Your task to perform on an android device: Open privacy settings Image 0: 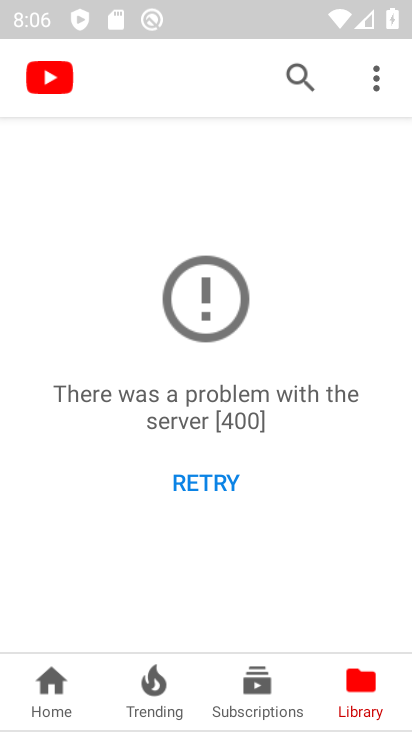
Step 0: press back button
Your task to perform on an android device: Open privacy settings Image 1: 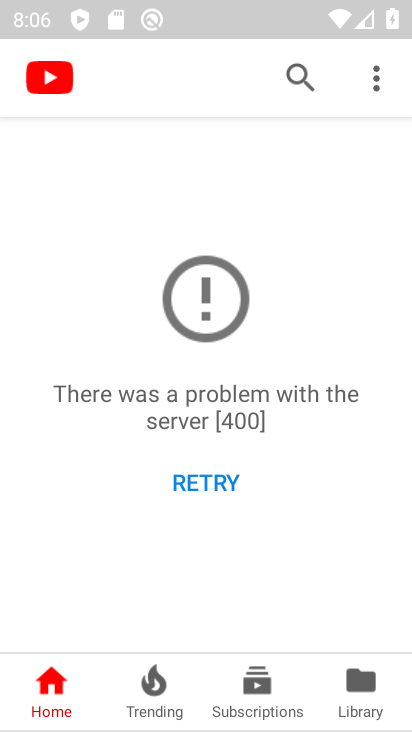
Step 1: press back button
Your task to perform on an android device: Open privacy settings Image 2: 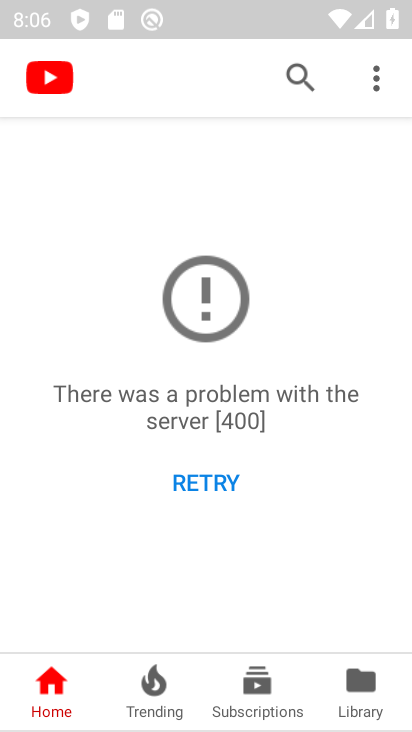
Step 2: press back button
Your task to perform on an android device: Open privacy settings Image 3: 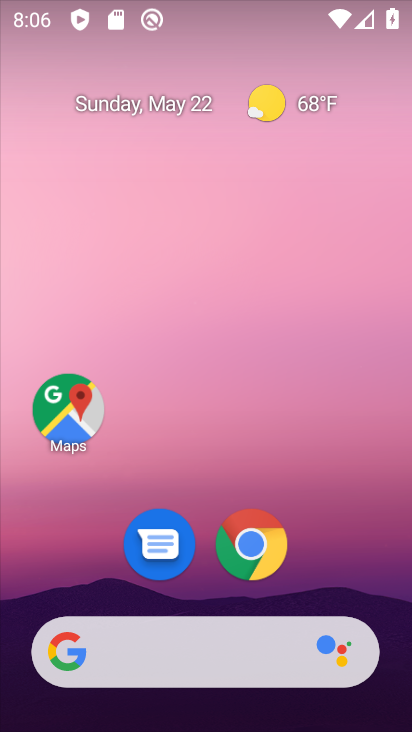
Step 3: drag from (389, 607) to (408, 174)
Your task to perform on an android device: Open privacy settings Image 4: 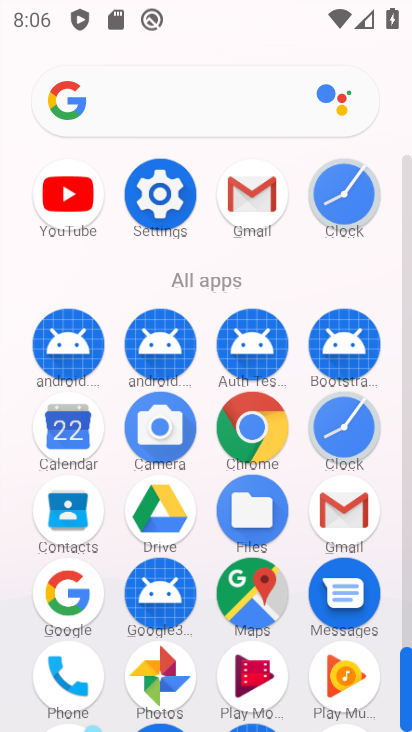
Step 4: click (243, 428)
Your task to perform on an android device: Open privacy settings Image 5: 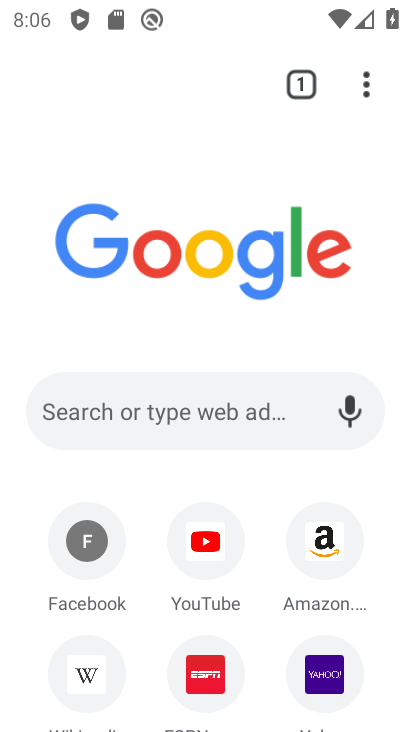
Step 5: click (363, 76)
Your task to perform on an android device: Open privacy settings Image 6: 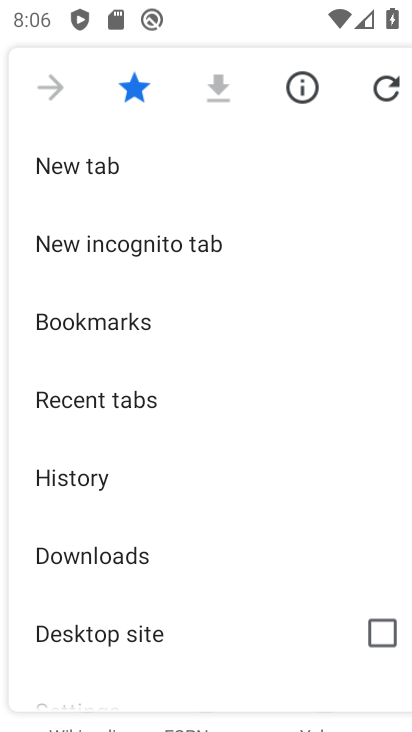
Step 6: drag from (272, 636) to (272, 313)
Your task to perform on an android device: Open privacy settings Image 7: 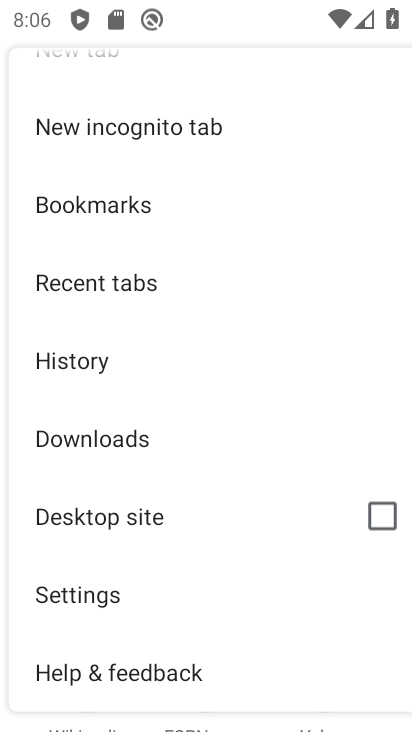
Step 7: click (90, 591)
Your task to perform on an android device: Open privacy settings Image 8: 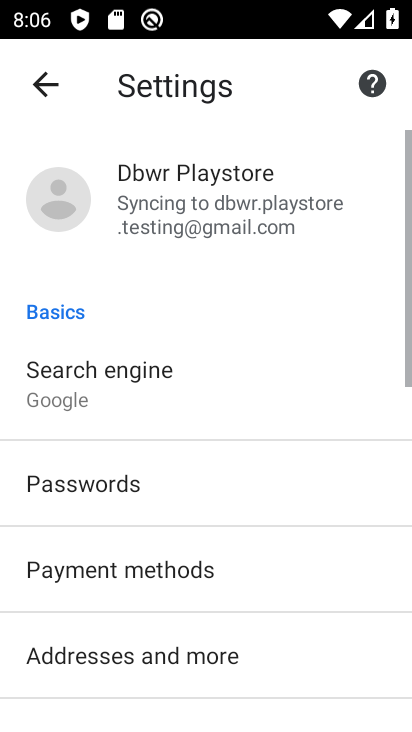
Step 8: drag from (258, 667) to (287, 351)
Your task to perform on an android device: Open privacy settings Image 9: 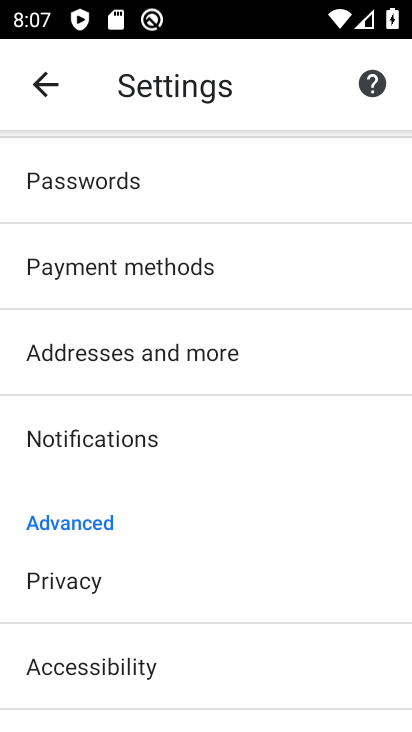
Step 9: click (61, 582)
Your task to perform on an android device: Open privacy settings Image 10: 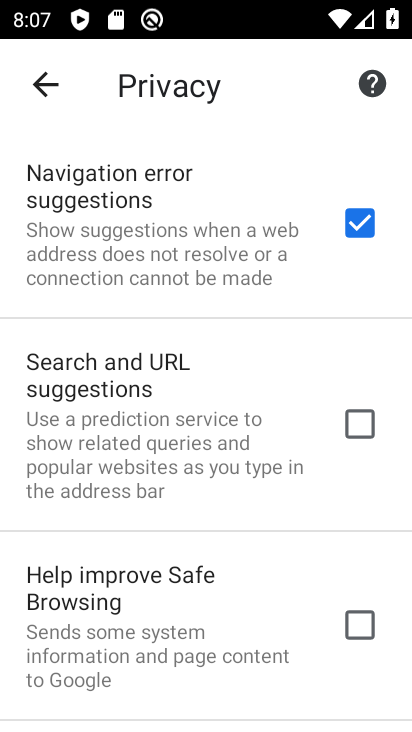
Step 10: task complete